Your task to perform on an android device: Open maps Image 0: 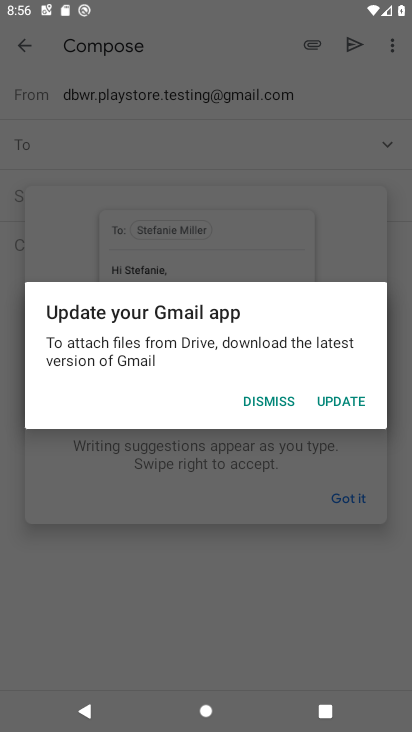
Step 0: press home button
Your task to perform on an android device: Open maps Image 1: 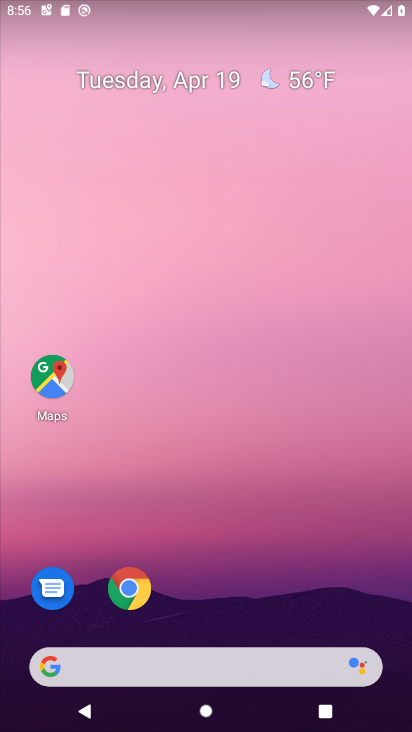
Step 1: click (51, 371)
Your task to perform on an android device: Open maps Image 2: 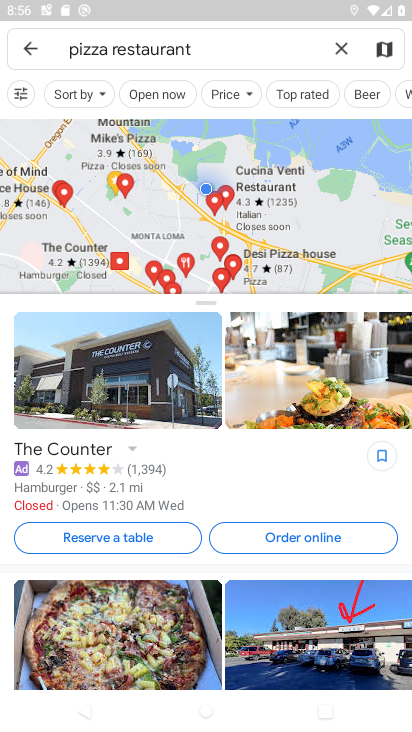
Step 2: click (32, 48)
Your task to perform on an android device: Open maps Image 3: 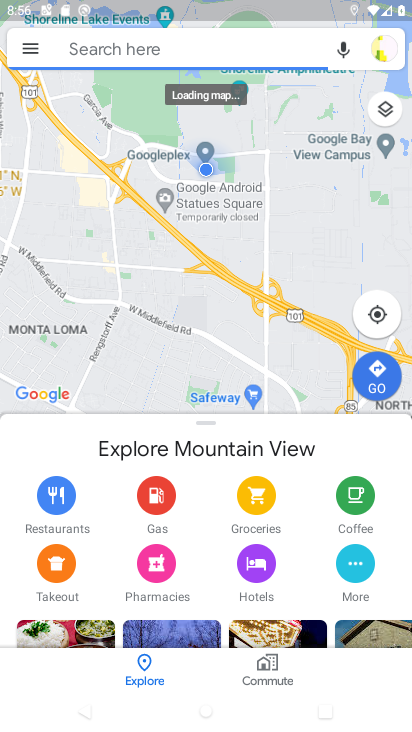
Step 3: task complete